Your task to perform on an android device: toggle show notifications on the lock screen Image 0: 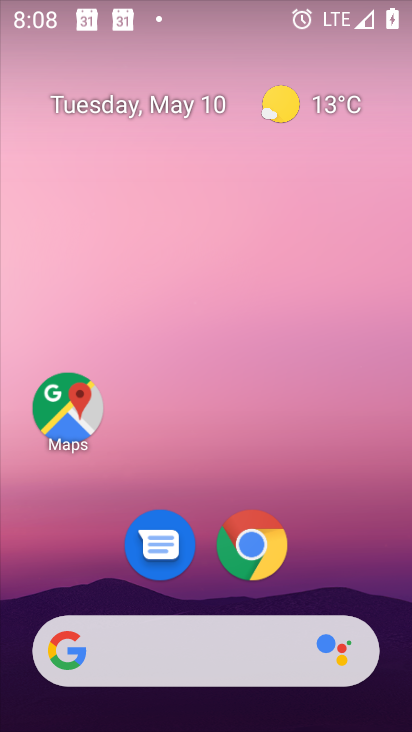
Step 0: drag from (202, 591) to (208, 17)
Your task to perform on an android device: toggle show notifications on the lock screen Image 1: 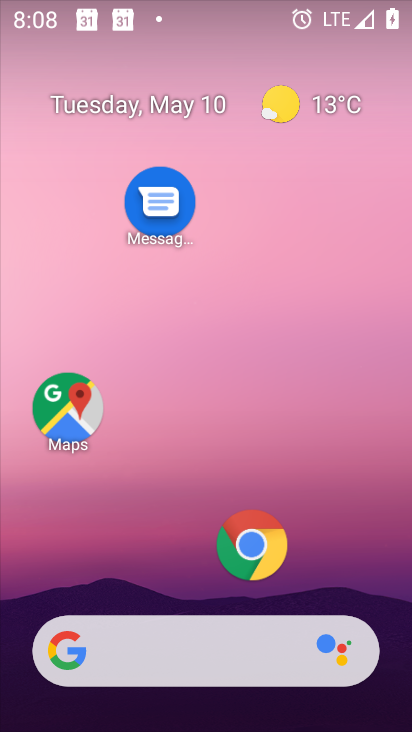
Step 1: drag from (328, 565) to (329, 73)
Your task to perform on an android device: toggle show notifications on the lock screen Image 2: 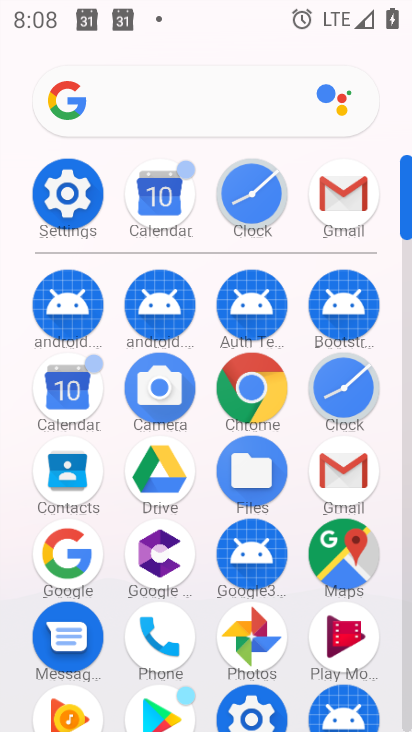
Step 2: click (69, 184)
Your task to perform on an android device: toggle show notifications on the lock screen Image 3: 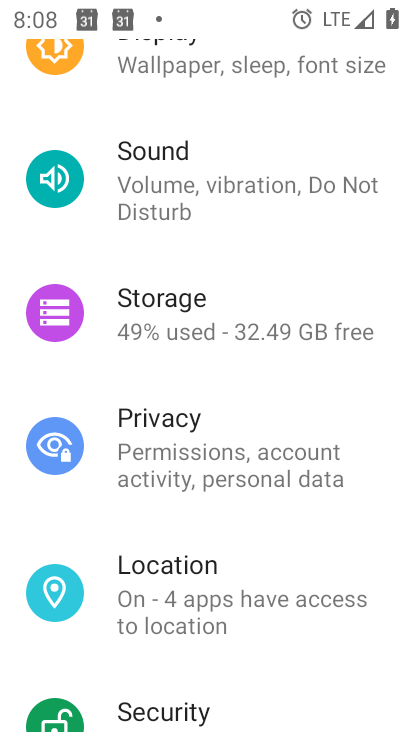
Step 3: drag from (224, 125) to (220, 526)
Your task to perform on an android device: toggle show notifications on the lock screen Image 4: 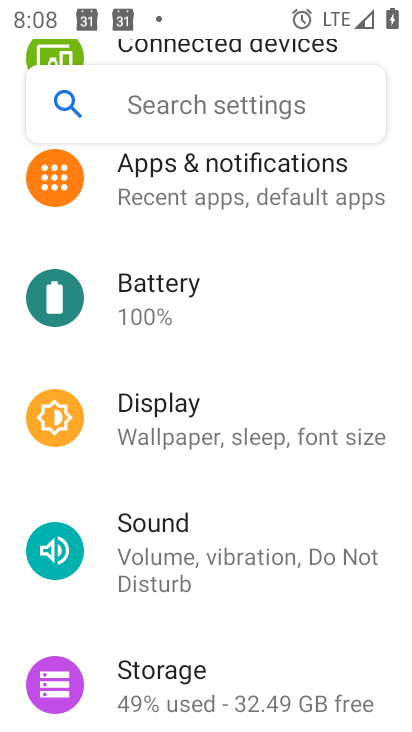
Step 4: click (195, 175)
Your task to perform on an android device: toggle show notifications on the lock screen Image 5: 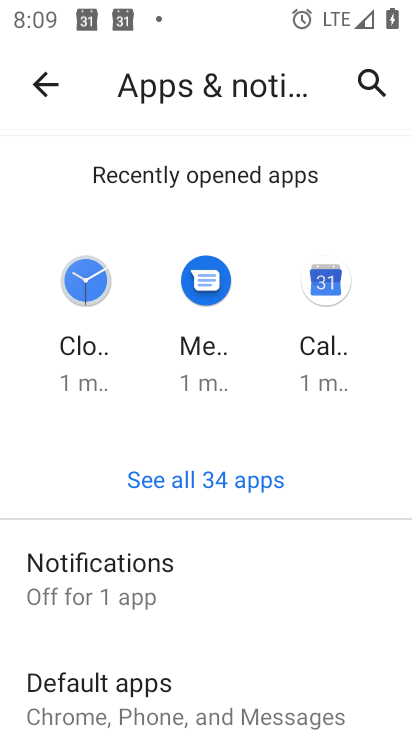
Step 5: click (186, 578)
Your task to perform on an android device: toggle show notifications on the lock screen Image 6: 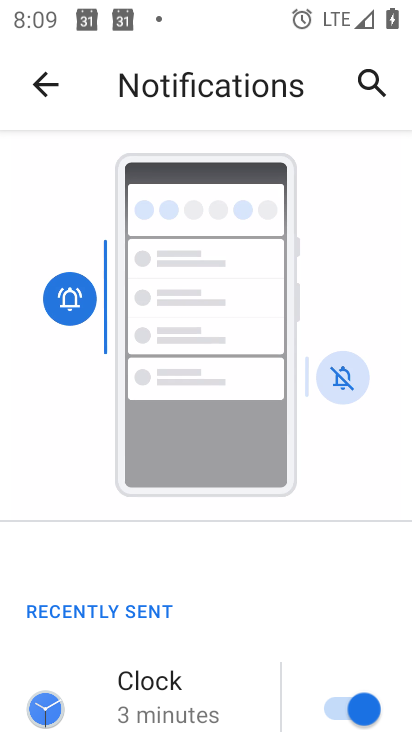
Step 6: drag from (226, 658) to (226, 376)
Your task to perform on an android device: toggle show notifications on the lock screen Image 7: 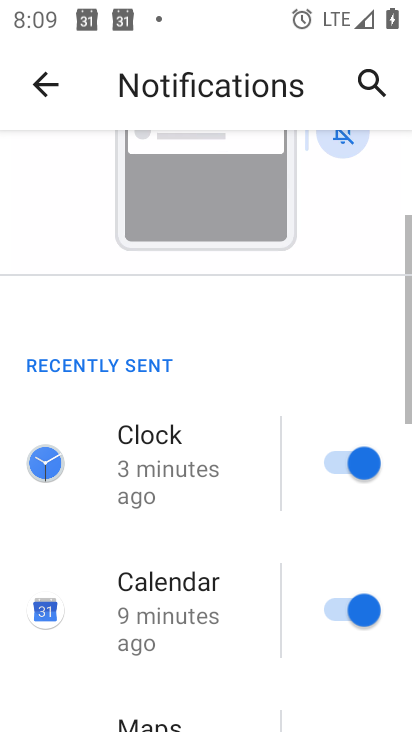
Step 7: click (227, 264)
Your task to perform on an android device: toggle show notifications on the lock screen Image 8: 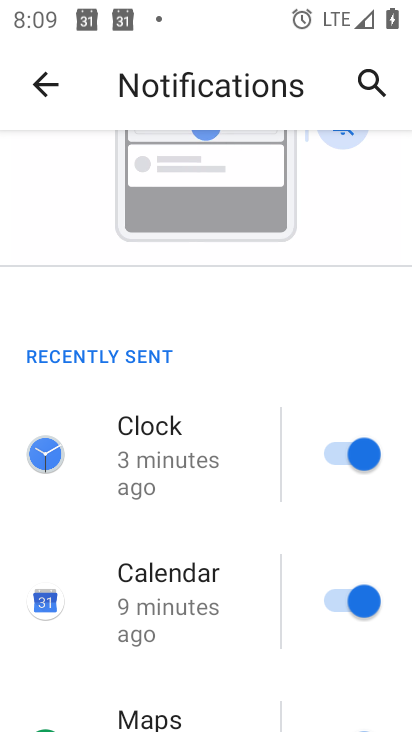
Step 8: drag from (235, 674) to (266, 258)
Your task to perform on an android device: toggle show notifications on the lock screen Image 9: 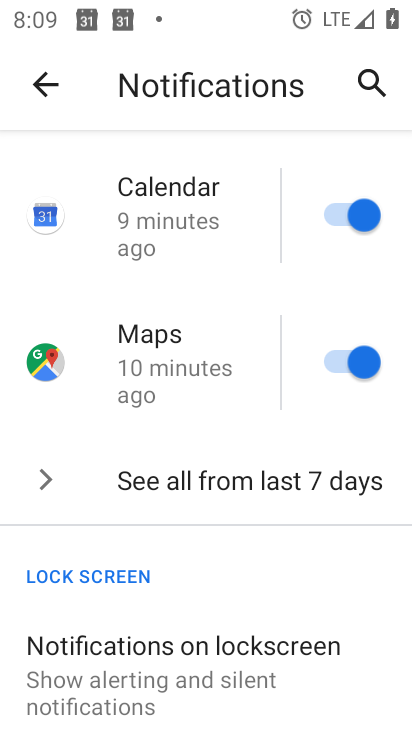
Step 9: click (243, 671)
Your task to perform on an android device: toggle show notifications on the lock screen Image 10: 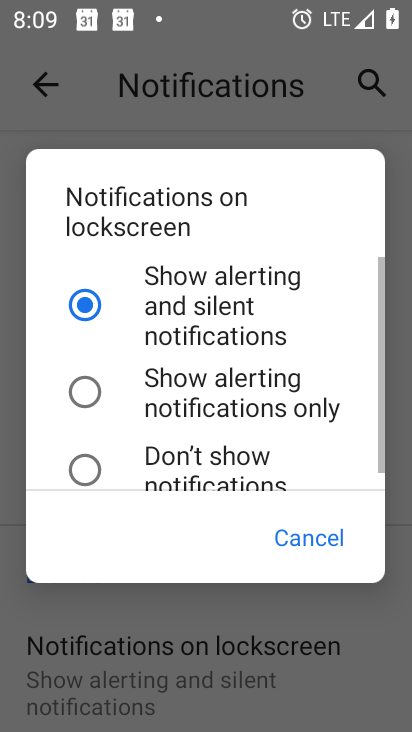
Step 10: click (81, 385)
Your task to perform on an android device: toggle show notifications on the lock screen Image 11: 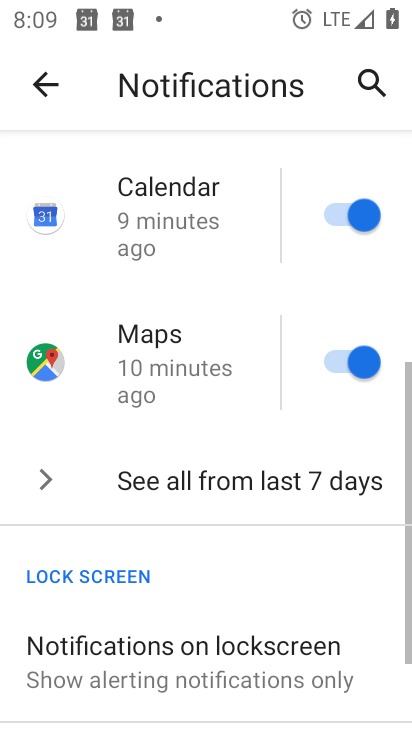
Step 11: task complete